Your task to perform on an android device: Go to CNN.com Image 0: 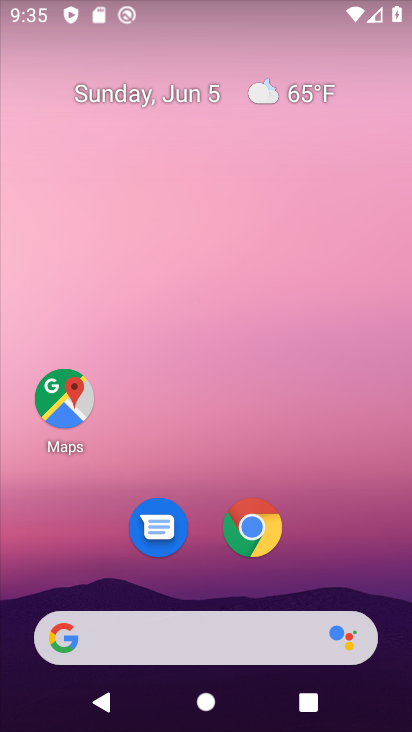
Step 0: click (235, 514)
Your task to perform on an android device: Go to CNN.com Image 1: 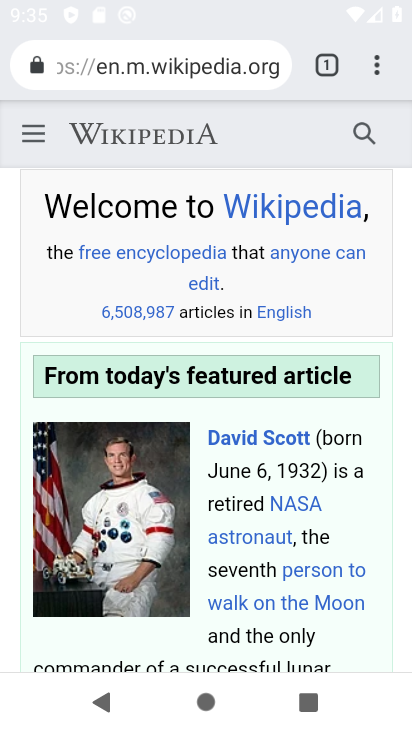
Step 1: click (313, 60)
Your task to perform on an android device: Go to CNN.com Image 2: 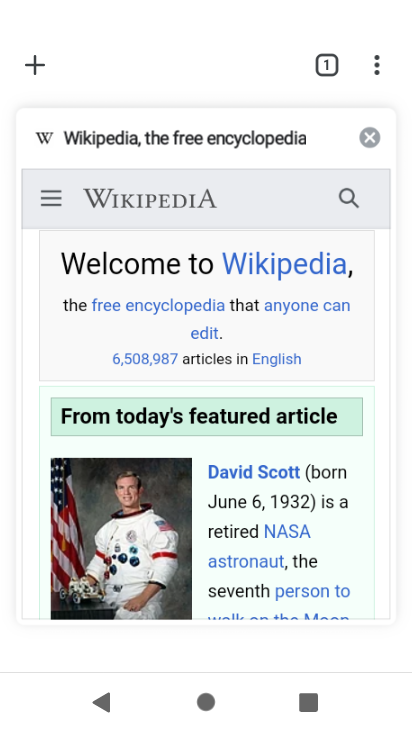
Step 2: click (27, 59)
Your task to perform on an android device: Go to CNN.com Image 3: 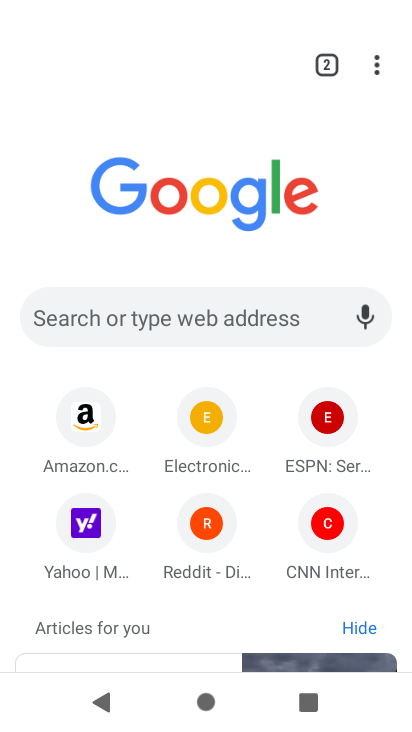
Step 3: drag from (190, 643) to (159, 569)
Your task to perform on an android device: Go to CNN.com Image 4: 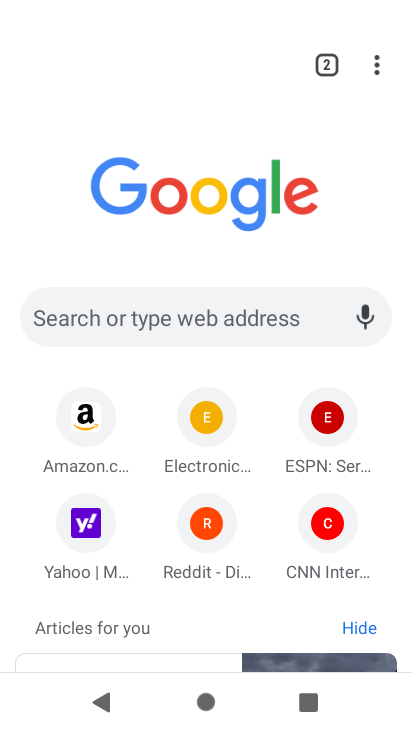
Step 4: click (144, 320)
Your task to perform on an android device: Go to CNN.com Image 5: 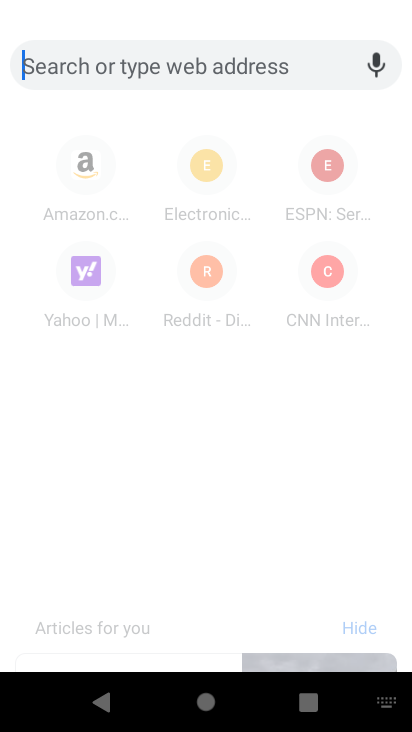
Step 5: click (342, 300)
Your task to perform on an android device: Go to CNN.com Image 6: 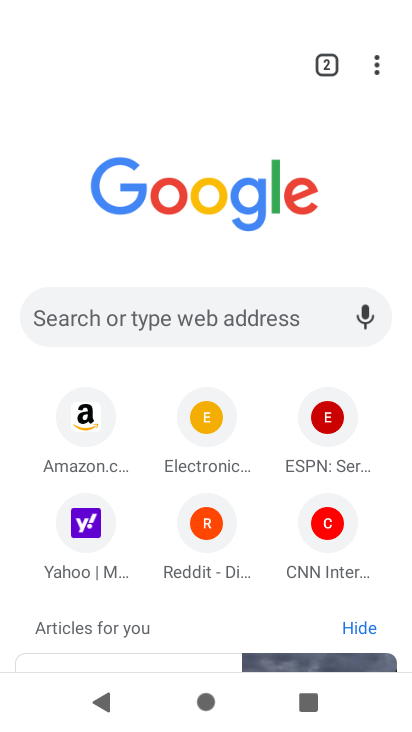
Step 6: click (336, 533)
Your task to perform on an android device: Go to CNN.com Image 7: 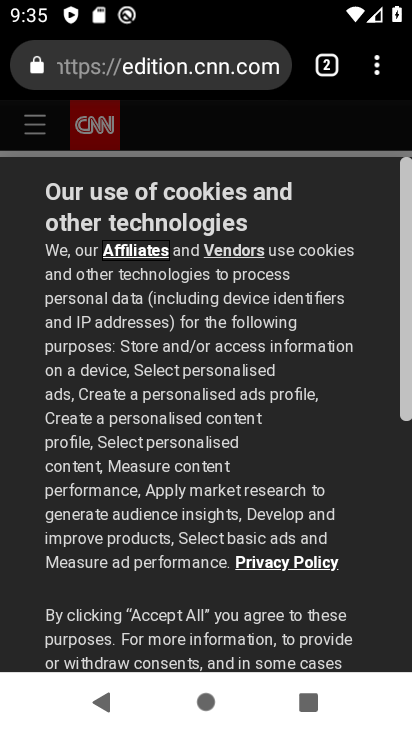
Step 7: task complete